Your task to perform on an android device: Go to calendar. Show me events next week Image 0: 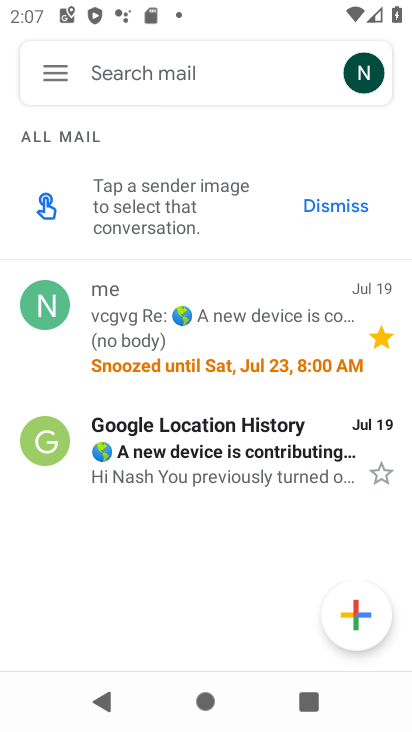
Step 0: press home button
Your task to perform on an android device: Go to calendar. Show me events next week Image 1: 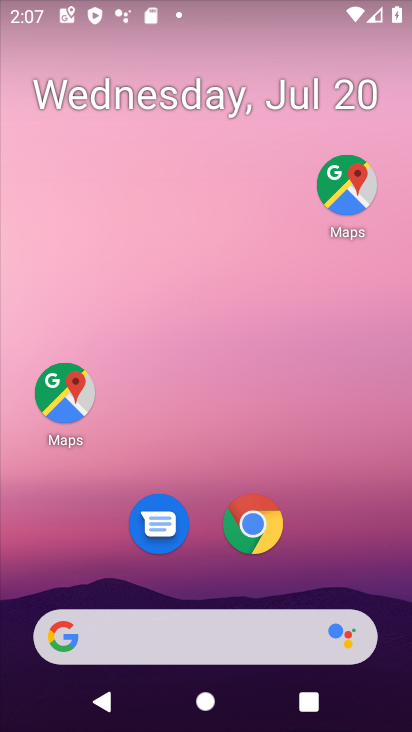
Step 1: drag from (204, 531) to (227, 36)
Your task to perform on an android device: Go to calendar. Show me events next week Image 2: 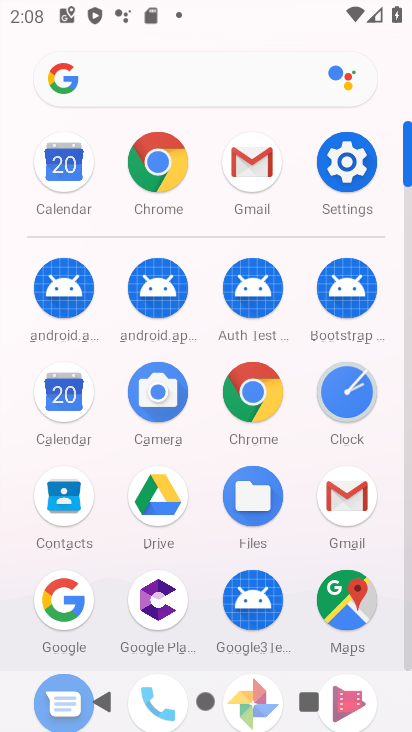
Step 2: click (67, 167)
Your task to perform on an android device: Go to calendar. Show me events next week Image 3: 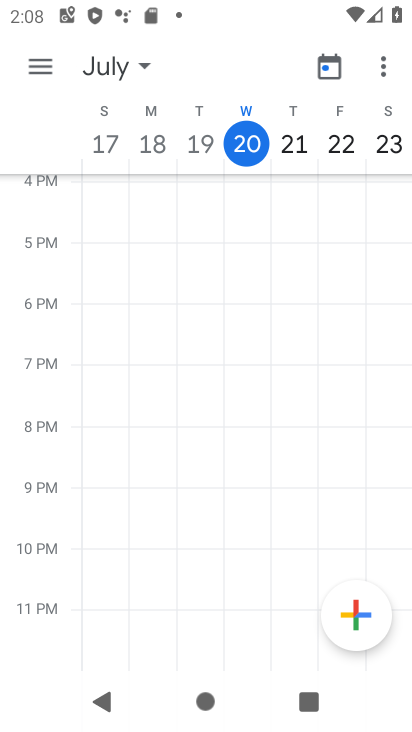
Step 3: task complete